Your task to perform on an android device: check the backup settings in the google photos Image 0: 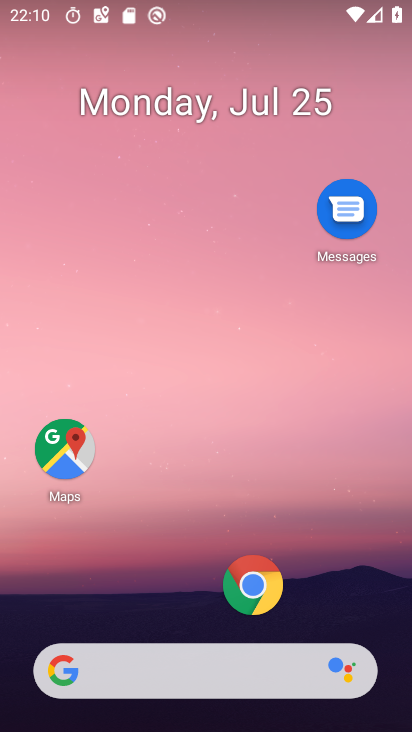
Step 0: press home button
Your task to perform on an android device: check the backup settings in the google photos Image 1: 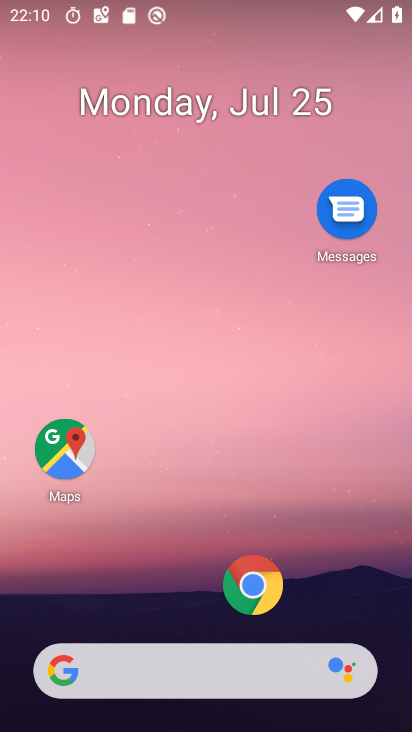
Step 1: drag from (178, 678) to (276, 65)
Your task to perform on an android device: check the backup settings in the google photos Image 2: 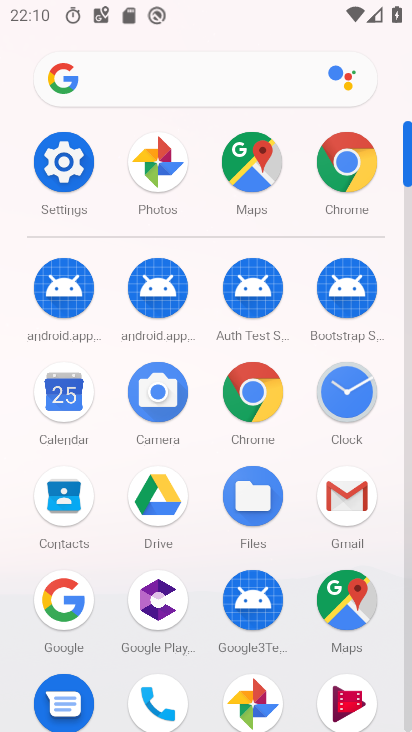
Step 2: drag from (204, 632) to (200, 237)
Your task to perform on an android device: check the backup settings in the google photos Image 3: 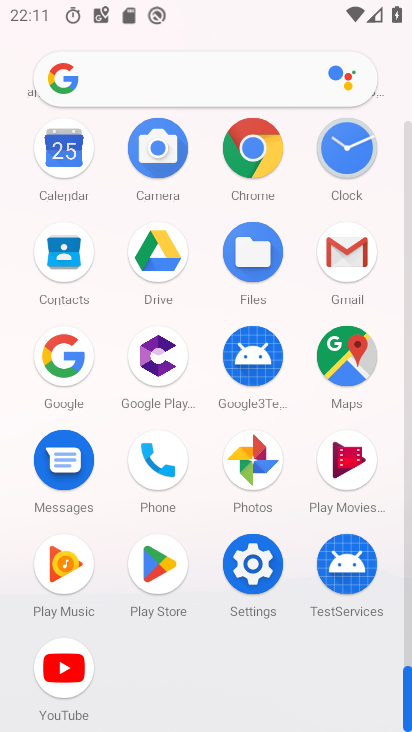
Step 3: click (262, 468)
Your task to perform on an android device: check the backup settings in the google photos Image 4: 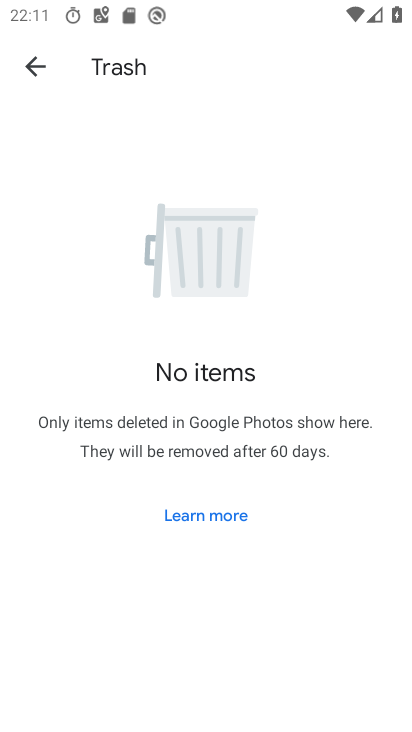
Step 4: click (34, 70)
Your task to perform on an android device: check the backup settings in the google photos Image 5: 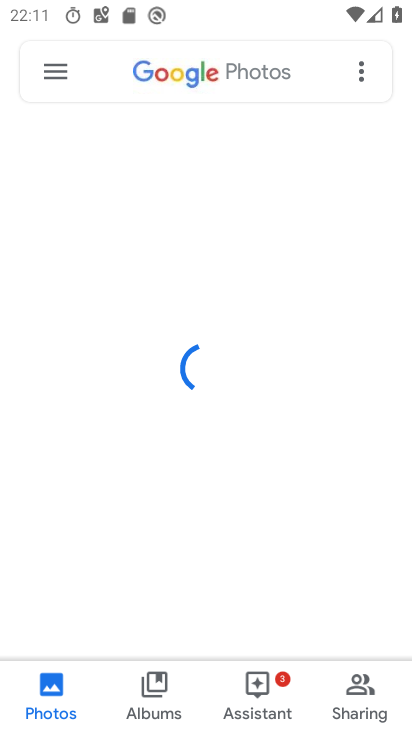
Step 5: click (60, 71)
Your task to perform on an android device: check the backup settings in the google photos Image 6: 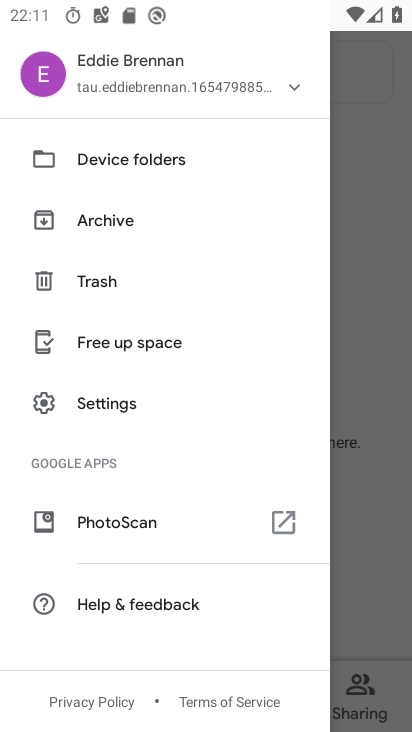
Step 6: click (119, 397)
Your task to perform on an android device: check the backup settings in the google photos Image 7: 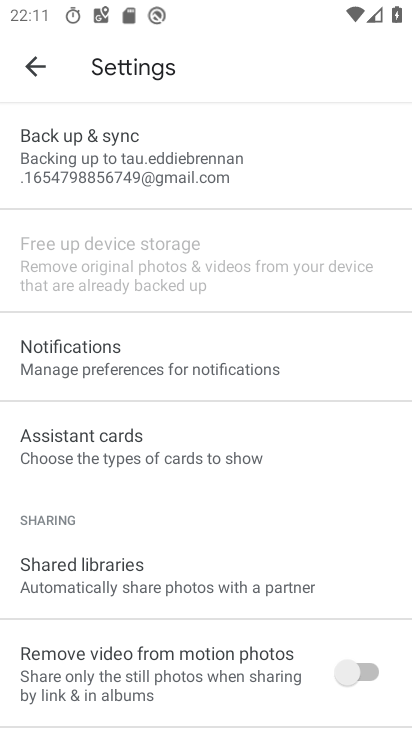
Step 7: click (213, 188)
Your task to perform on an android device: check the backup settings in the google photos Image 8: 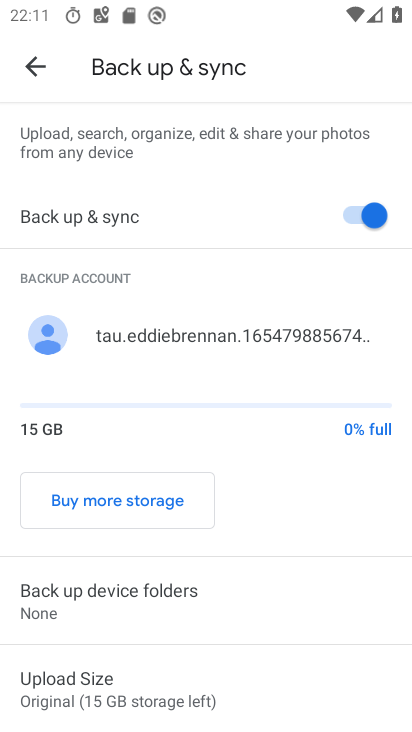
Step 8: task complete